Your task to perform on an android device: Open calendar and show me the third week of next month Image 0: 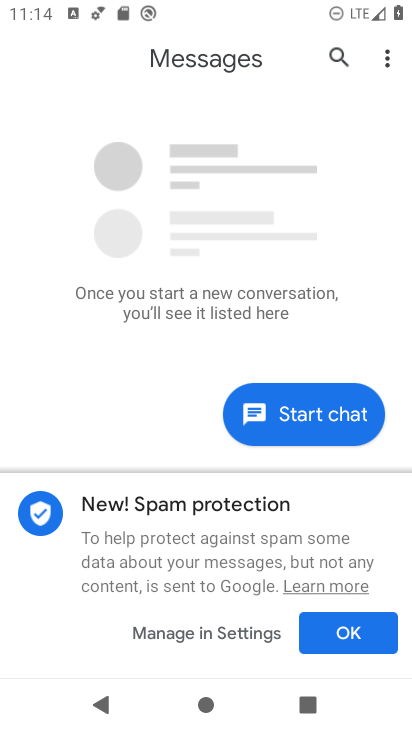
Step 0: press home button
Your task to perform on an android device: Open calendar and show me the third week of next month Image 1: 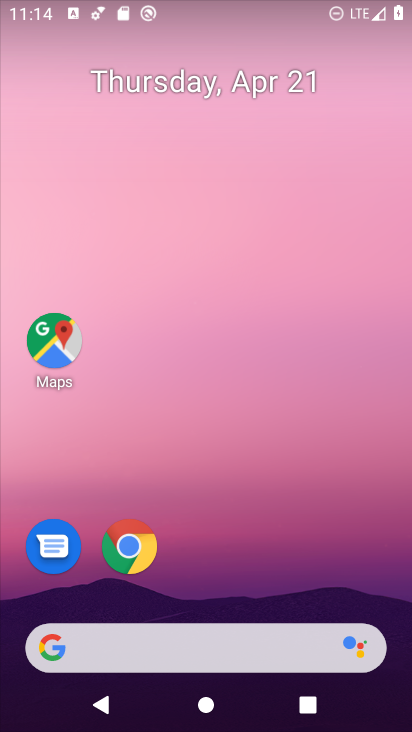
Step 1: drag from (331, 507) to (255, 45)
Your task to perform on an android device: Open calendar and show me the third week of next month Image 2: 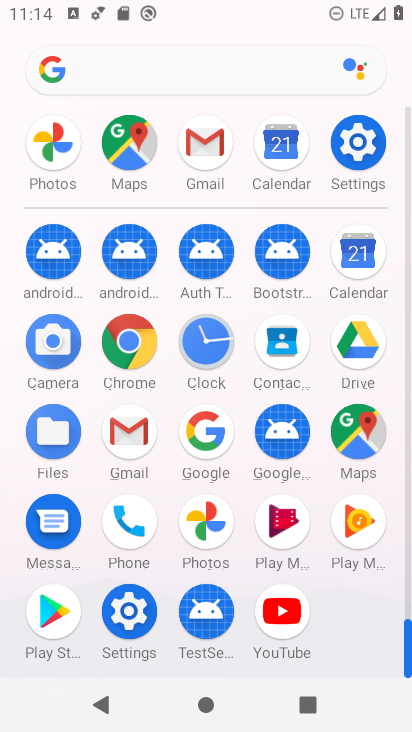
Step 2: click (355, 248)
Your task to perform on an android device: Open calendar and show me the third week of next month Image 3: 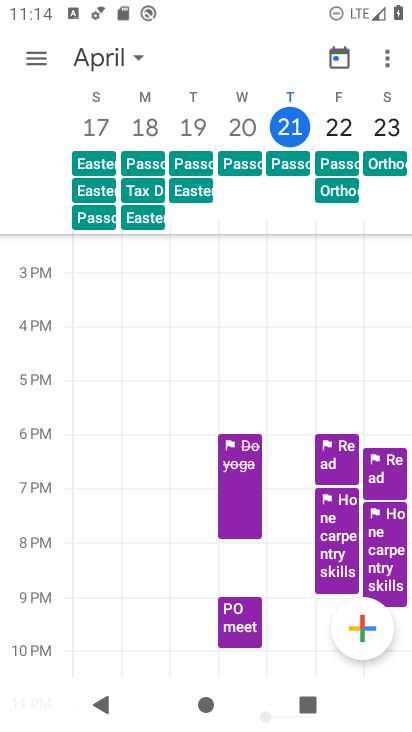
Step 3: click (29, 51)
Your task to perform on an android device: Open calendar and show me the third week of next month Image 4: 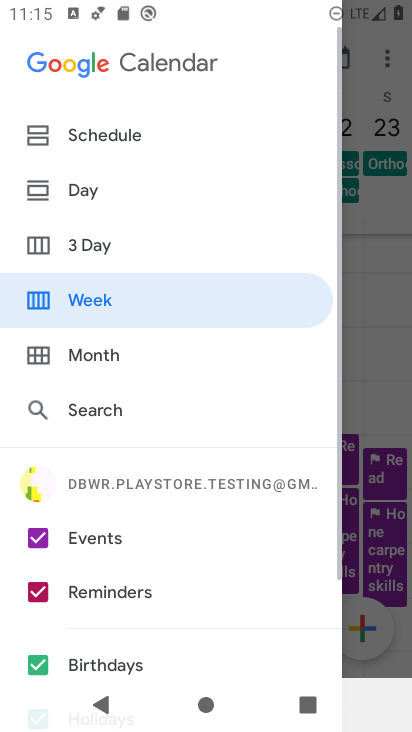
Step 4: click (102, 304)
Your task to perform on an android device: Open calendar and show me the third week of next month Image 5: 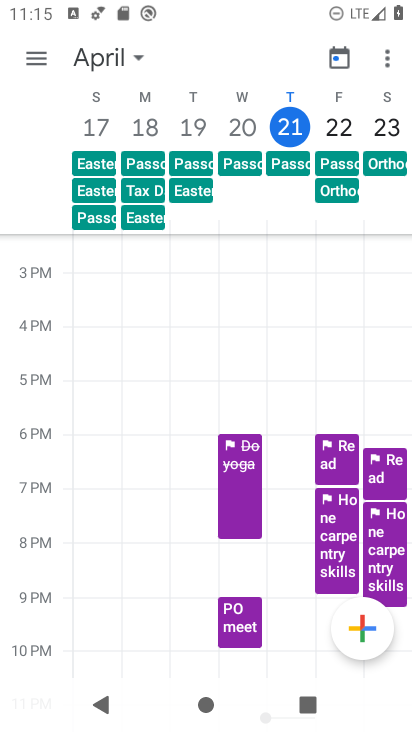
Step 5: click (138, 56)
Your task to perform on an android device: Open calendar and show me the third week of next month Image 6: 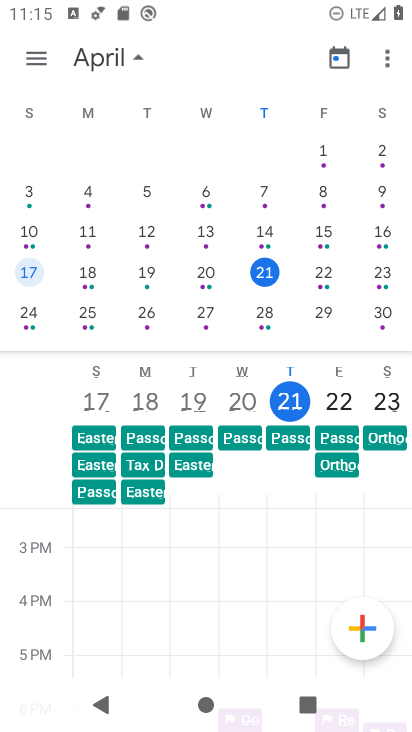
Step 6: drag from (384, 262) to (0, 212)
Your task to perform on an android device: Open calendar and show me the third week of next month Image 7: 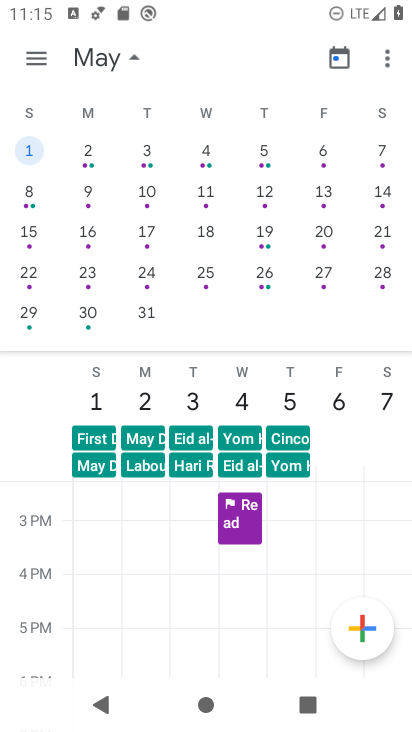
Step 7: click (26, 239)
Your task to perform on an android device: Open calendar and show me the third week of next month Image 8: 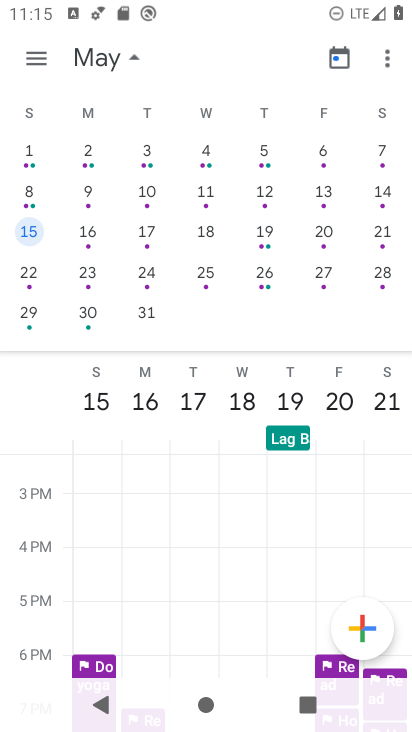
Step 8: task complete